Your task to perform on an android device: move an email to a new category in the gmail app Image 0: 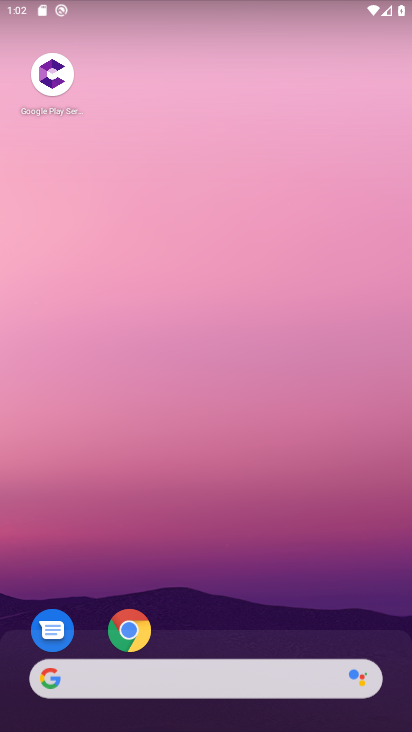
Step 0: drag from (222, 617) to (265, 75)
Your task to perform on an android device: move an email to a new category in the gmail app Image 1: 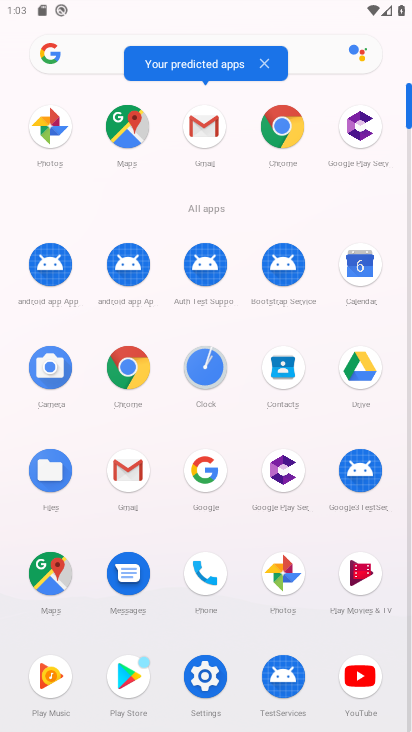
Step 1: click (193, 125)
Your task to perform on an android device: move an email to a new category in the gmail app Image 2: 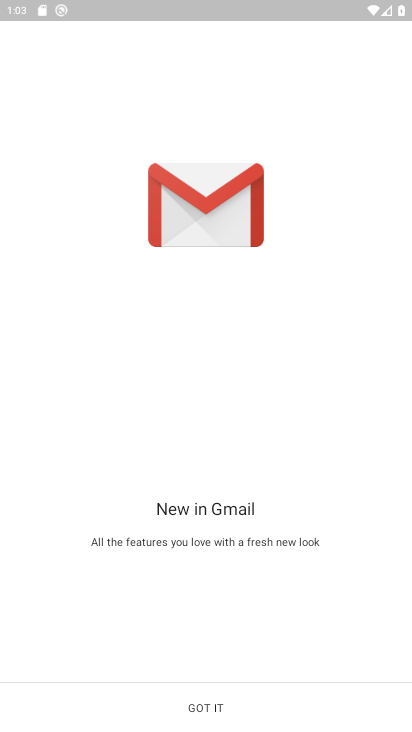
Step 2: click (194, 711)
Your task to perform on an android device: move an email to a new category in the gmail app Image 3: 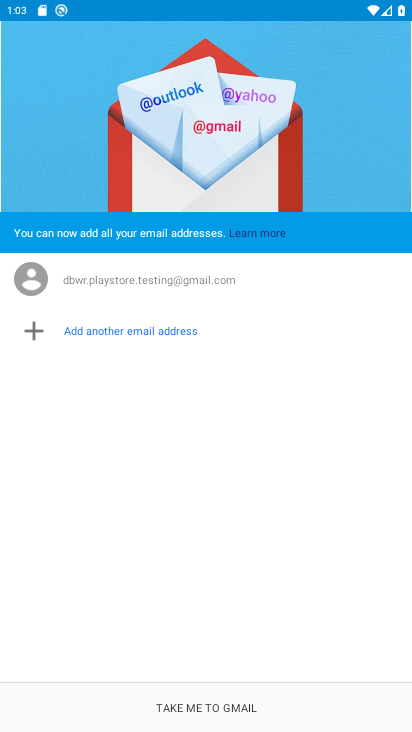
Step 3: click (192, 711)
Your task to perform on an android device: move an email to a new category in the gmail app Image 4: 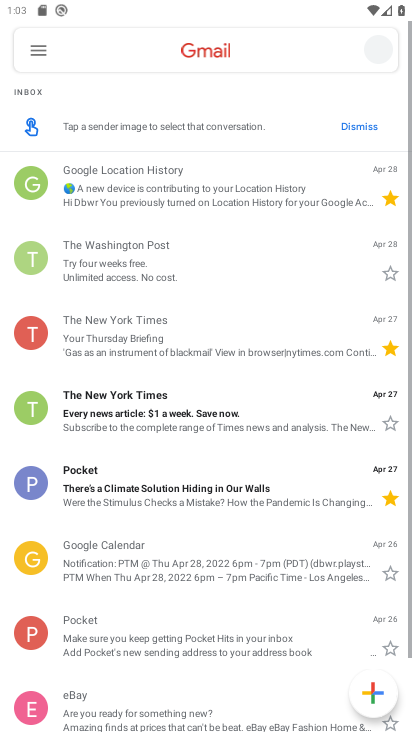
Step 4: click (34, 45)
Your task to perform on an android device: move an email to a new category in the gmail app Image 5: 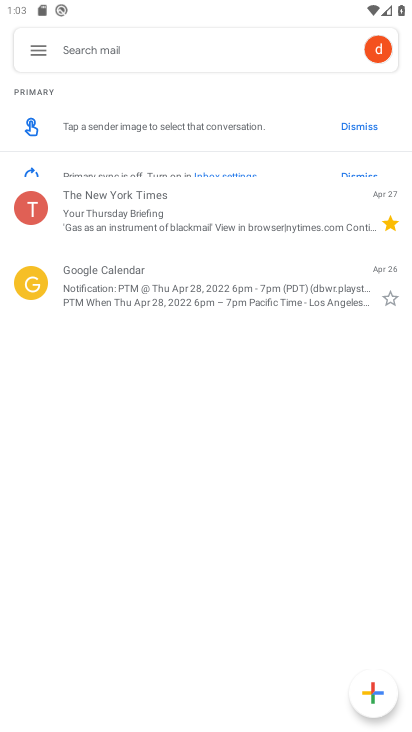
Step 5: click (34, 45)
Your task to perform on an android device: move an email to a new category in the gmail app Image 6: 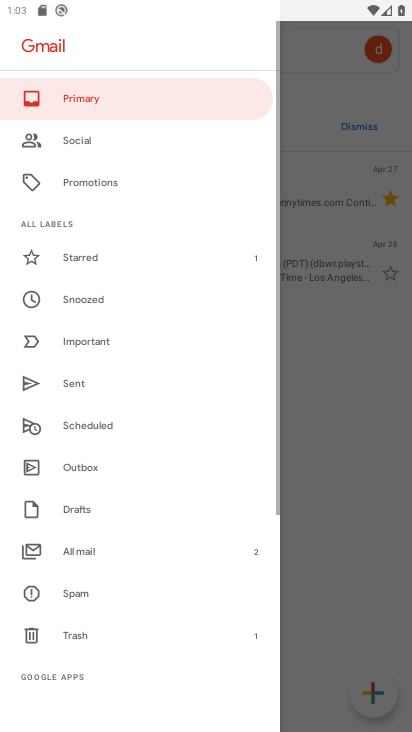
Step 6: click (102, 551)
Your task to perform on an android device: move an email to a new category in the gmail app Image 7: 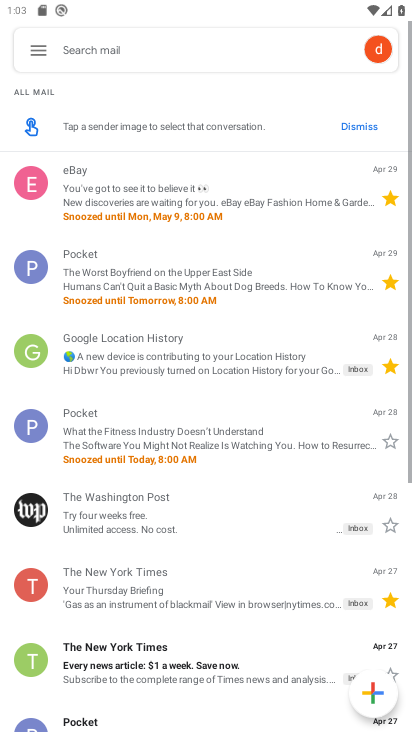
Step 7: click (145, 188)
Your task to perform on an android device: move an email to a new category in the gmail app Image 8: 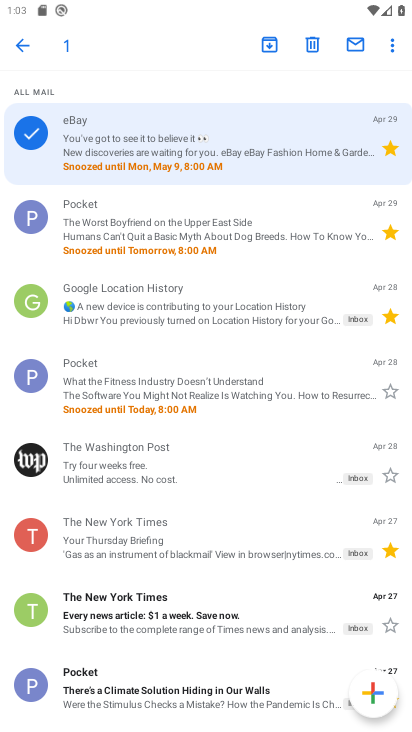
Step 8: click (385, 42)
Your task to perform on an android device: move an email to a new category in the gmail app Image 9: 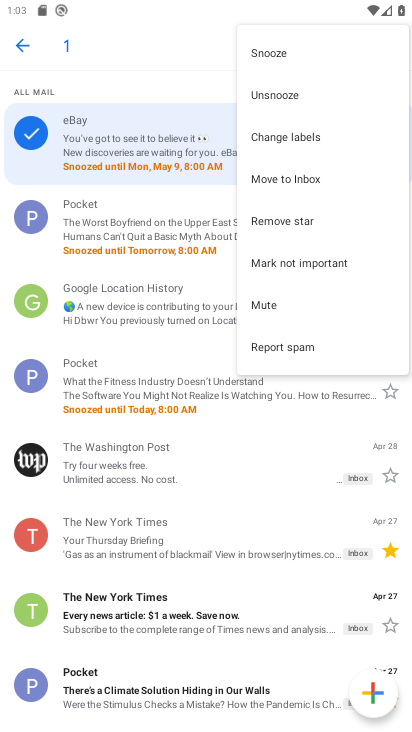
Step 9: click (294, 176)
Your task to perform on an android device: move an email to a new category in the gmail app Image 10: 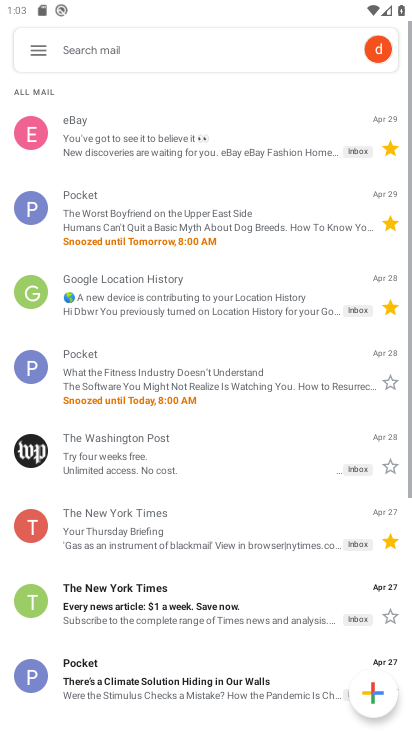
Step 10: task complete